Your task to perform on an android device: turn on improve location accuracy Image 0: 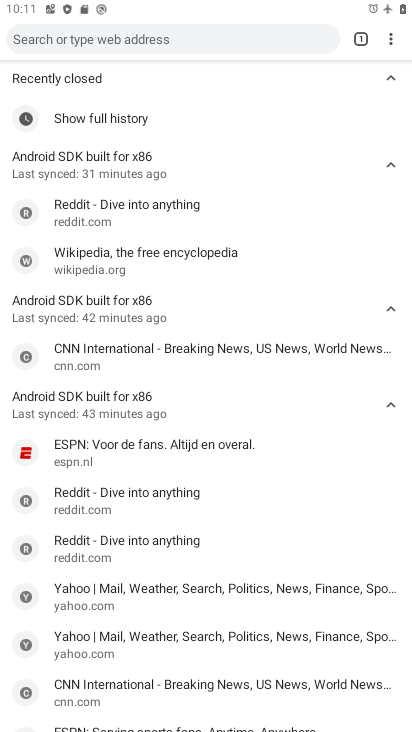
Step 0: press home button
Your task to perform on an android device: turn on improve location accuracy Image 1: 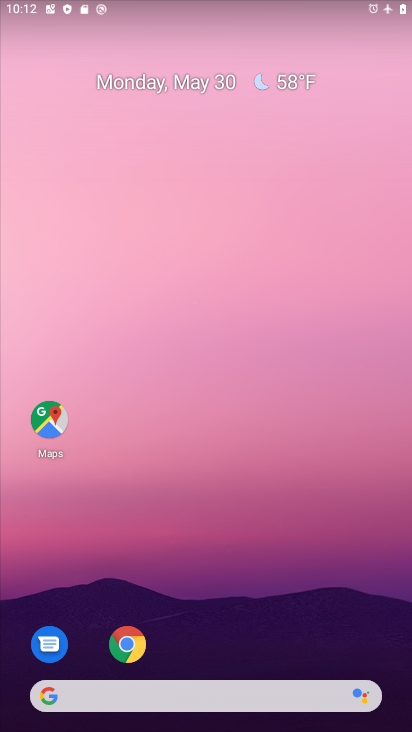
Step 1: drag from (378, 665) to (329, 278)
Your task to perform on an android device: turn on improve location accuracy Image 2: 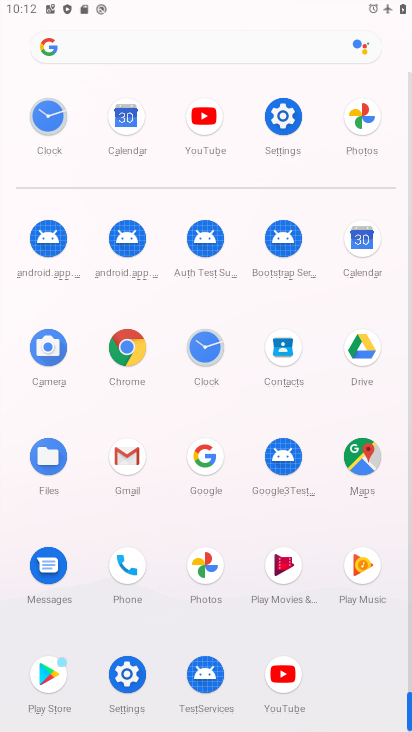
Step 2: click (125, 669)
Your task to perform on an android device: turn on improve location accuracy Image 3: 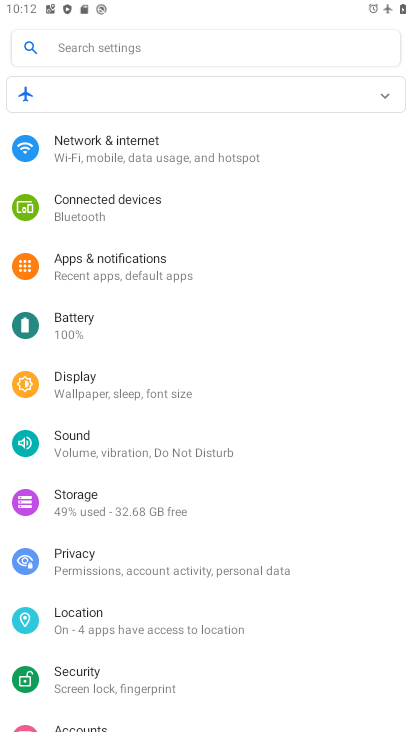
Step 3: click (108, 620)
Your task to perform on an android device: turn on improve location accuracy Image 4: 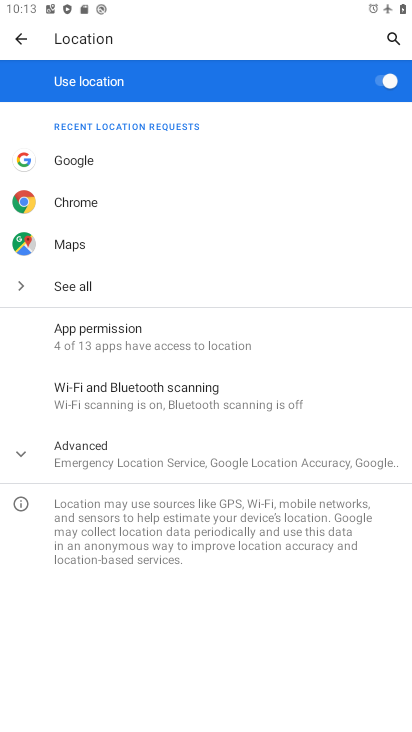
Step 4: click (40, 448)
Your task to perform on an android device: turn on improve location accuracy Image 5: 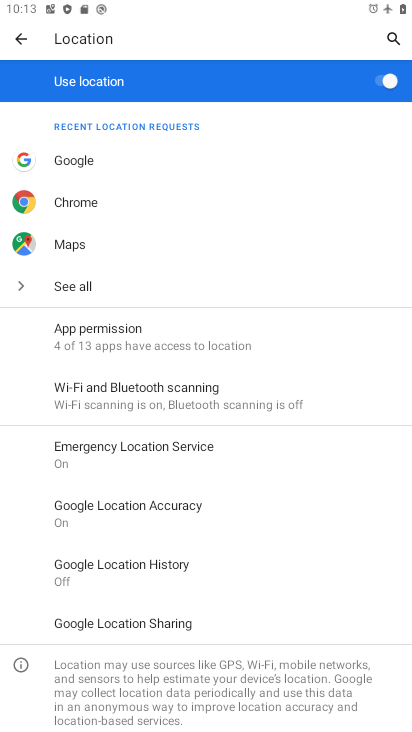
Step 5: click (109, 506)
Your task to perform on an android device: turn on improve location accuracy Image 6: 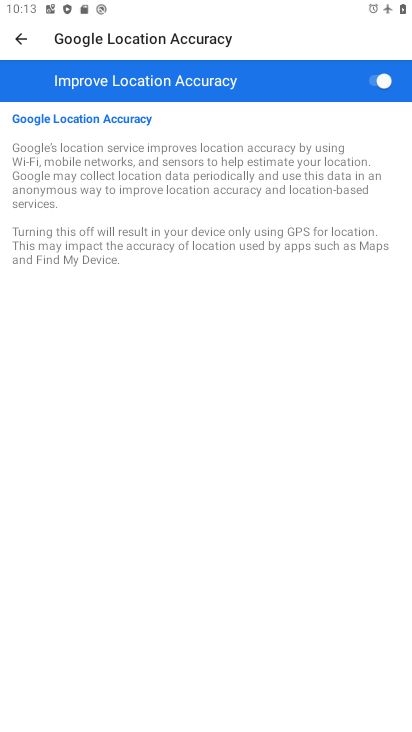
Step 6: task complete